Your task to perform on an android device: move a message to another label in the gmail app Image 0: 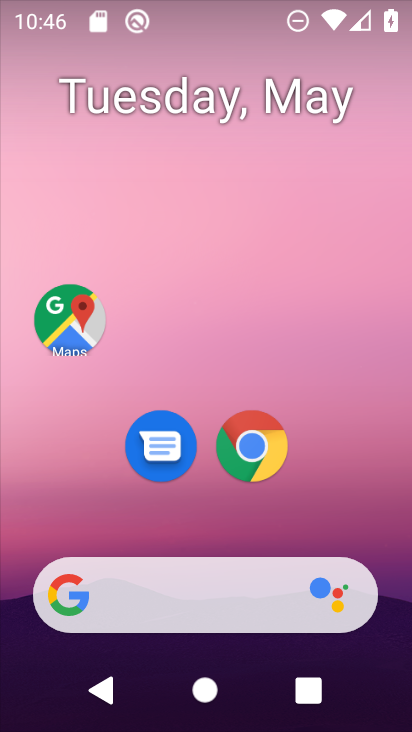
Step 0: drag from (205, 536) to (284, 7)
Your task to perform on an android device: move a message to another label in the gmail app Image 1: 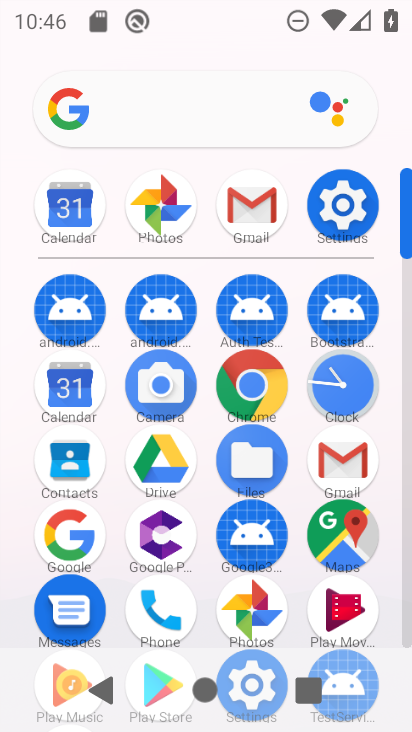
Step 1: click (347, 463)
Your task to perform on an android device: move a message to another label in the gmail app Image 2: 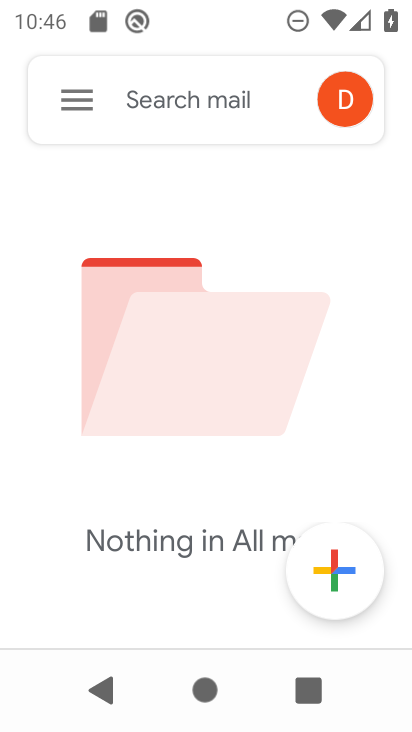
Step 2: task complete